Your task to perform on an android device: toggle data saver in the chrome app Image 0: 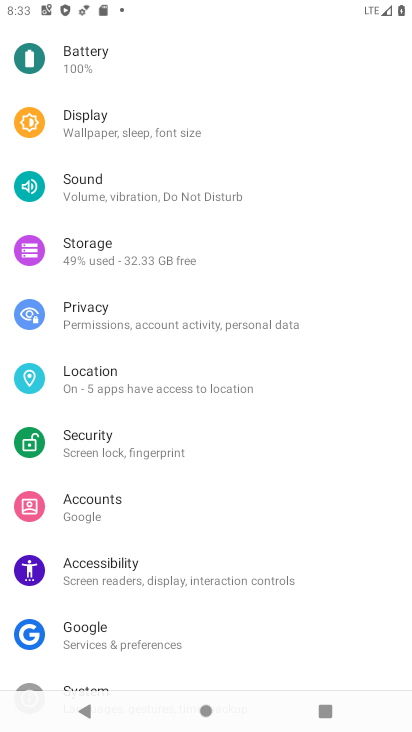
Step 0: press home button
Your task to perform on an android device: toggle data saver in the chrome app Image 1: 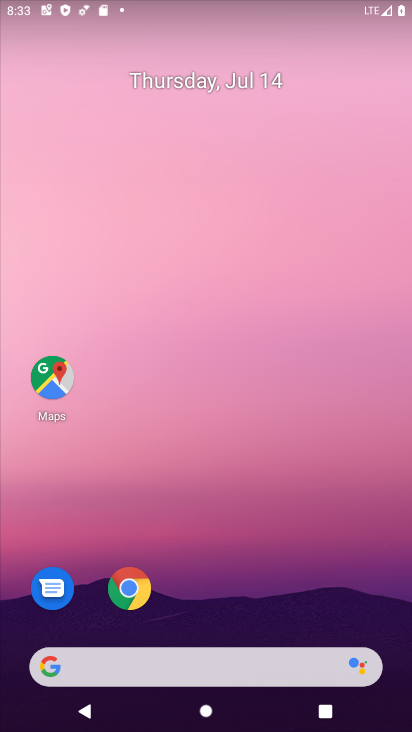
Step 1: drag from (383, 652) to (294, 0)
Your task to perform on an android device: toggle data saver in the chrome app Image 2: 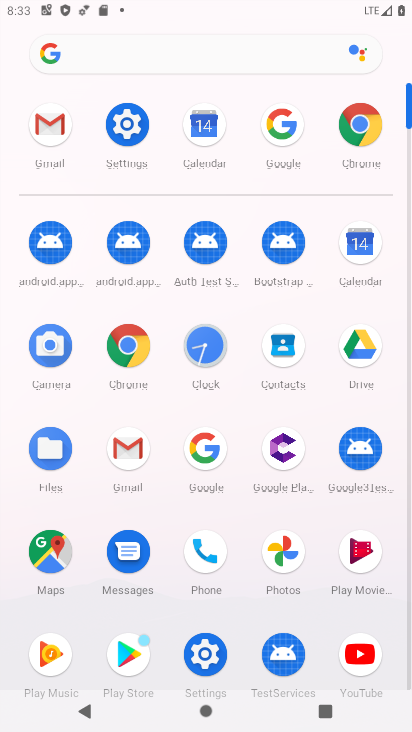
Step 2: click (128, 351)
Your task to perform on an android device: toggle data saver in the chrome app Image 3: 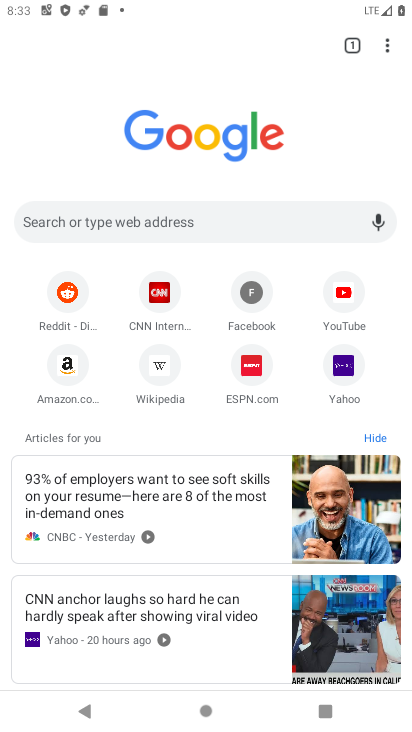
Step 3: click (388, 40)
Your task to perform on an android device: toggle data saver in the chrome app Image 4: 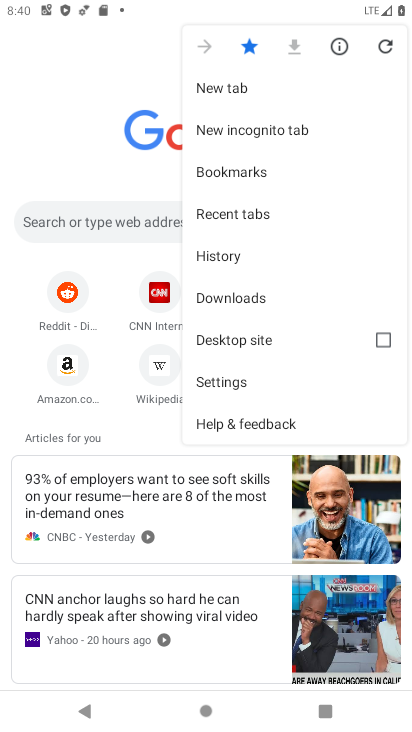
Step 4: press home button
Your task to perform on an android device: toggle data saver in the chrome app Image 5: 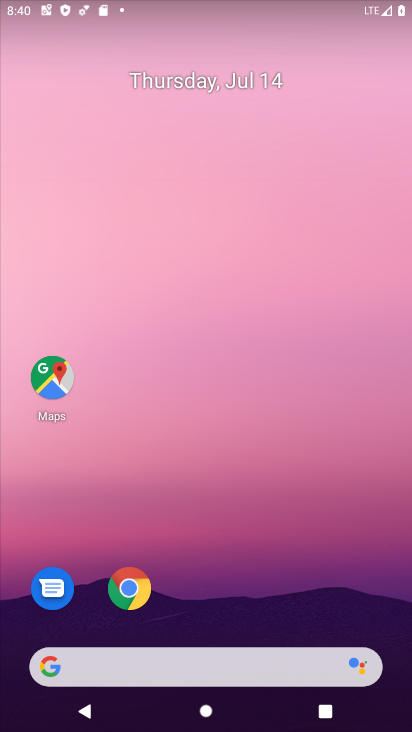
Step 5: drag from (379, 635) to (223, 4)
Your task to perform on an android device: toggle data saver in the chrome app Image 6: 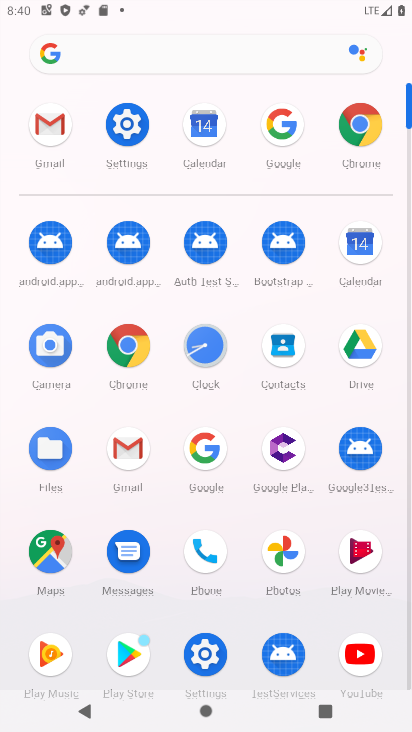
Step 6: click (354, 125)
Your task to perform on an android device: toggle data saver in the chrome app Image 7: 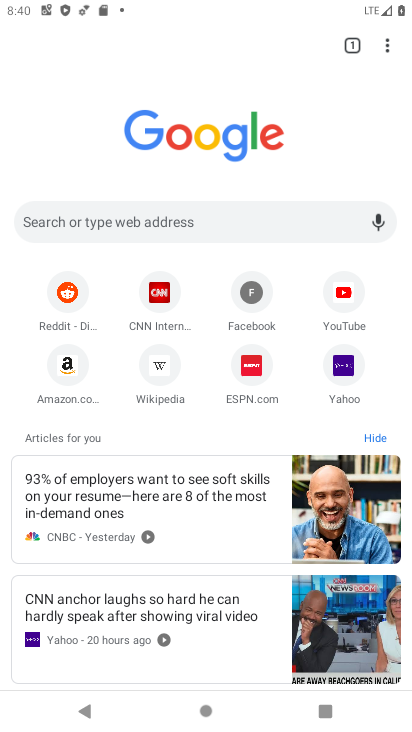
Step 7: click (388, 44)
Your task to perform on an android device: toggle data saver in the chrome app Image 8: 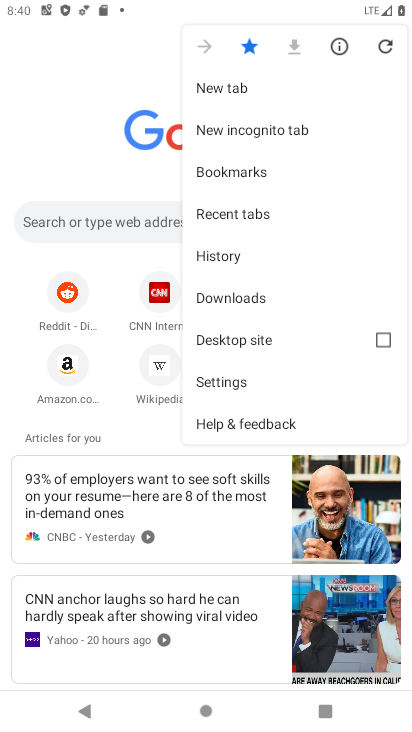
Step 8: click (232, 377)
Your task to perform on an android device: toggle data saver in the chrome app Image 9: 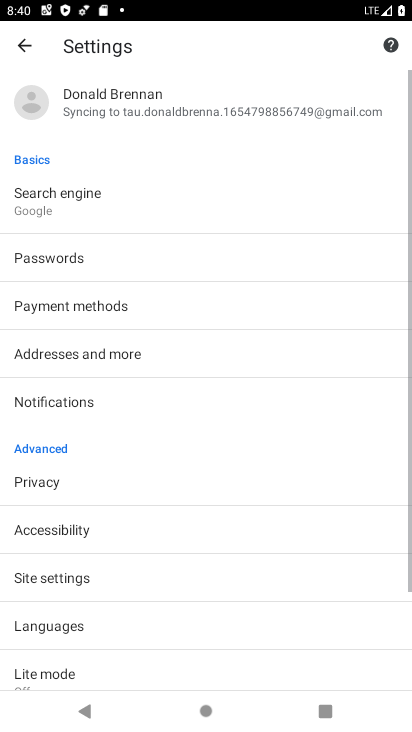
Step 9: click (60, 666)
Your task to perform on an android device: toggle data saver in the chrome app Image 10: 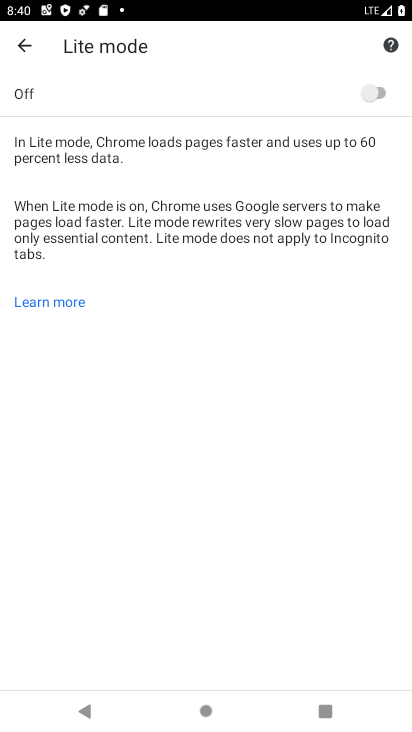
Step 10: click (365, 82)
Your task to perform on an android device: toggle data saver in the chrome app Image 11: 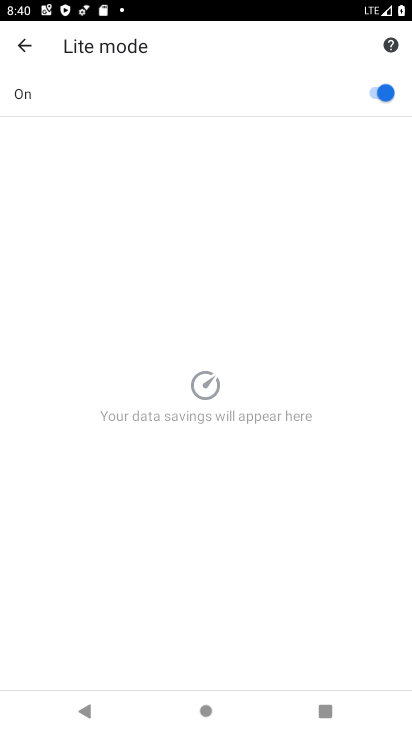
Step 11: task complete